Your task to perform on an android device: turn on translation in the chrome app Image 0: 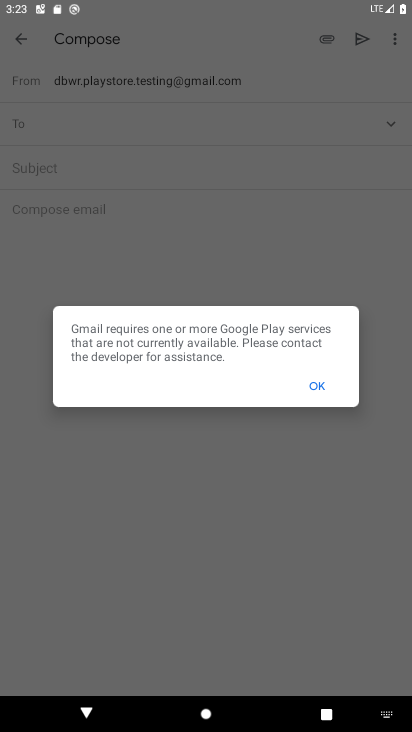
Step 0: press home button
Your task to perform on an android device: turn on translation in the chrome app Image 1: 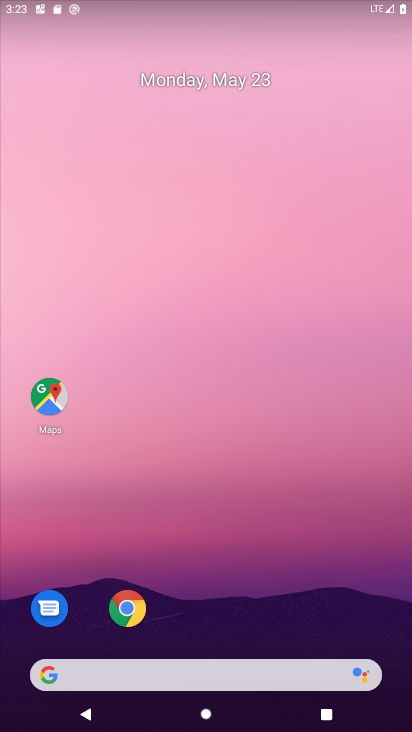
Step 1: drag from (213, 614) to (208, 130)
Your task to perform on an android device: turn on translation in the chrome app Image 2: 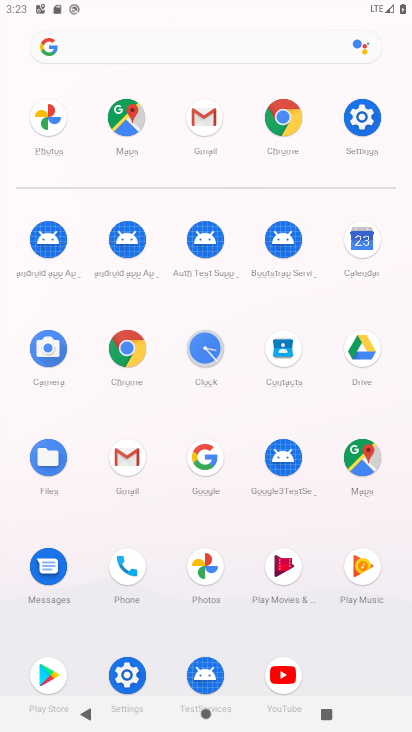
Step 2: click (284, 137)
Your task to perform on an android device: turn on translation in the chrome app Image 3: 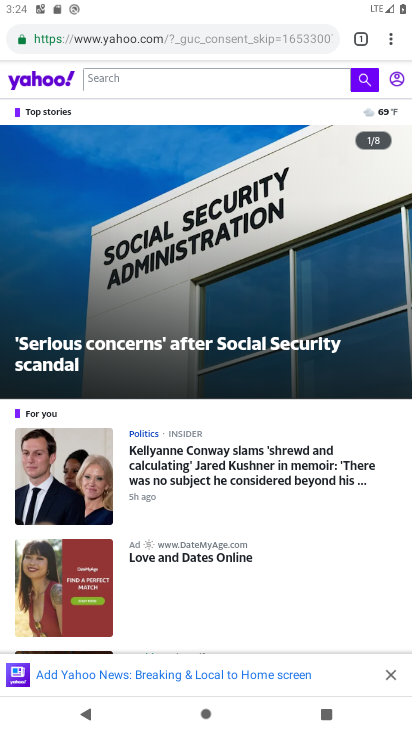
Step 3: click (386, 44)
Your task to perform on an android device: turn on translation in the chrome app Image 4: 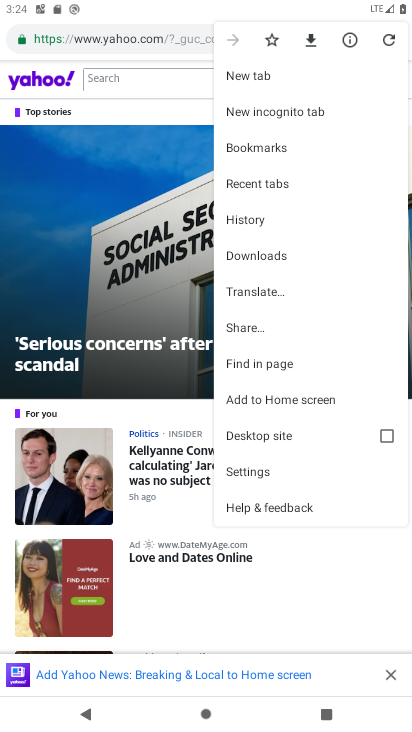
Step 4: click (295, 466)
Your task to perform on an android device: turn on translation in the chrome app Image 5: 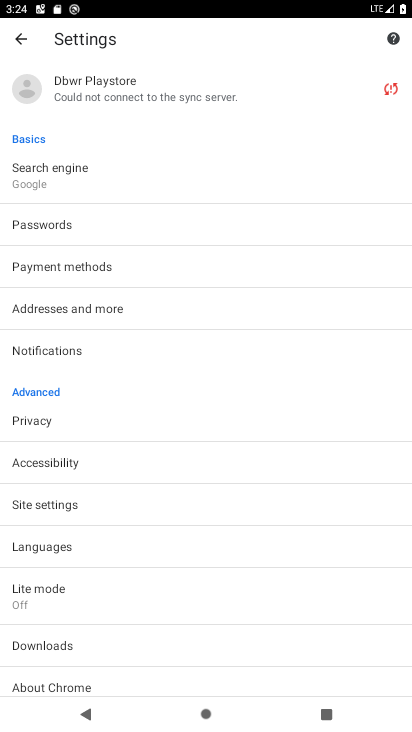
Step 5: click (197, 548)
Your task to perform on an android device: turn on translation in the chrome app Image 6: 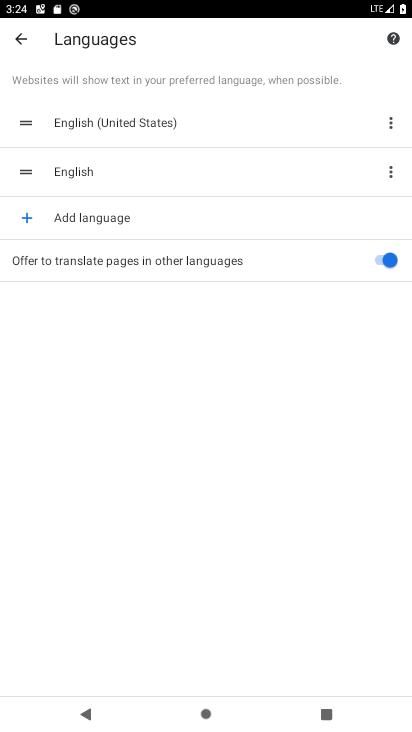
Step 6: task complete